Your task to perform on an android device: When is my next appointment? Image 0: 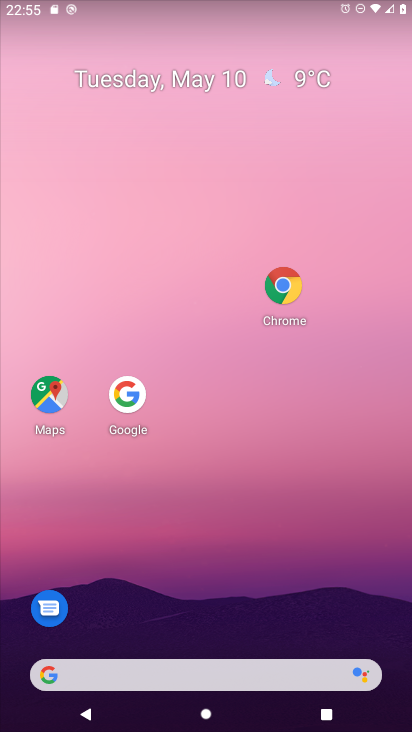
Step 0: drag from (177, 662) to (330, 135)
Your task to perform on an android device: When is my next appointment? Image 1: 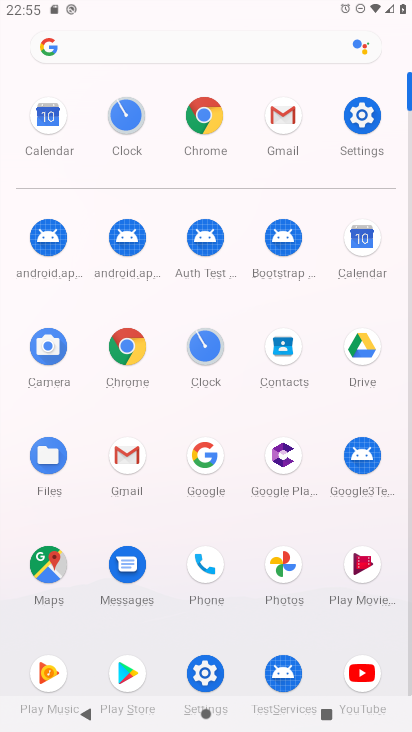
Step 1: click (351, 259)
Your task to perform on an android device: When is my next appointment? Image 2: 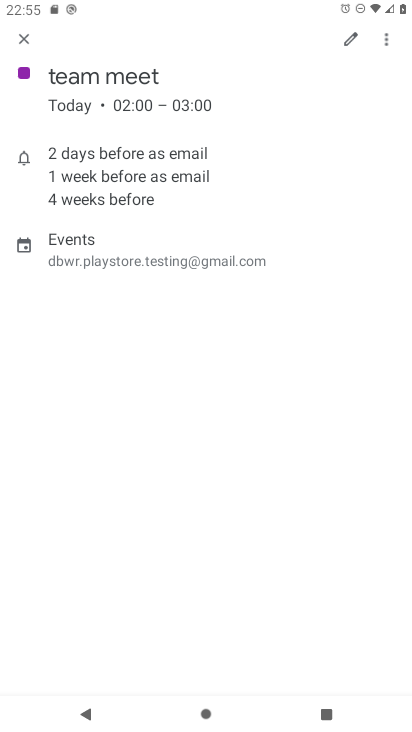
Step 2: click (22, 38)
Your task to perform on an android device: When is my next appointment? Image 3: 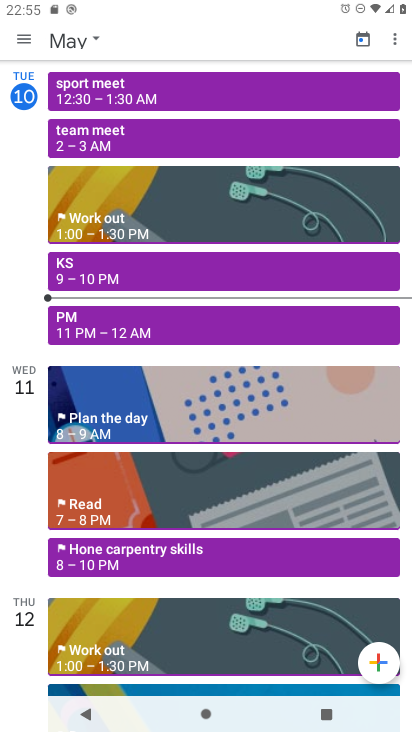
Step 3: click (74, 42)
Your task to perform on an android device: When is my next appointment? Image 4: 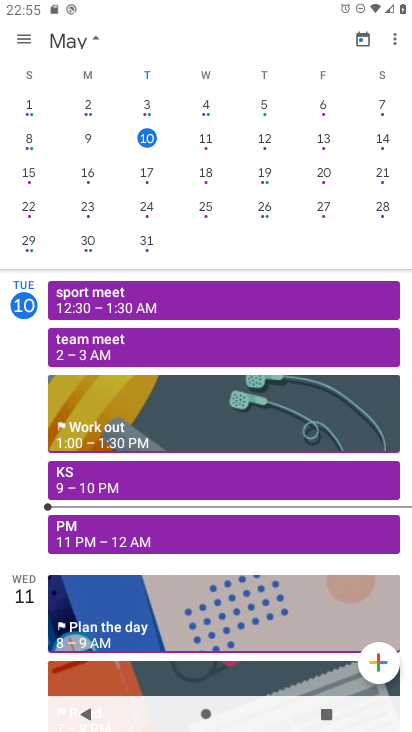
Step 4: click (26, 38)
Your task to perform on an android device: When is my next appointment? Image 5: 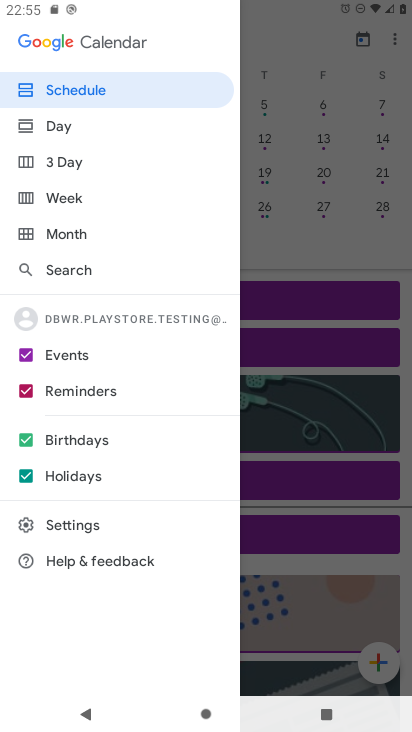
Step 5: click (86, 89)
Your task to perform on an android device: When is my next appointment? Image 6: 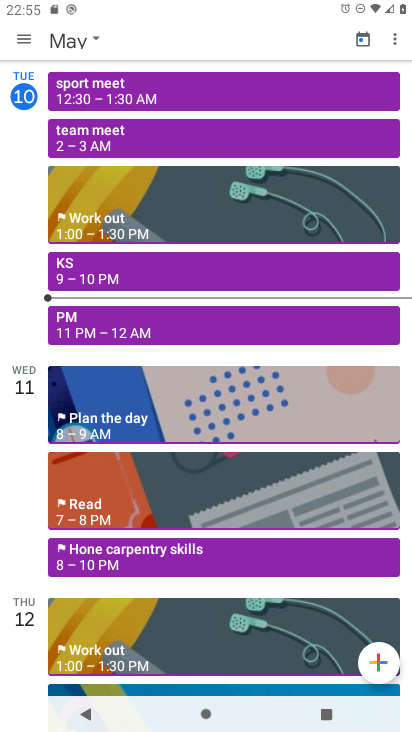
Step 6: click (136, 199)
Your task to perform on an android device: When is my next appointment? Image 7: 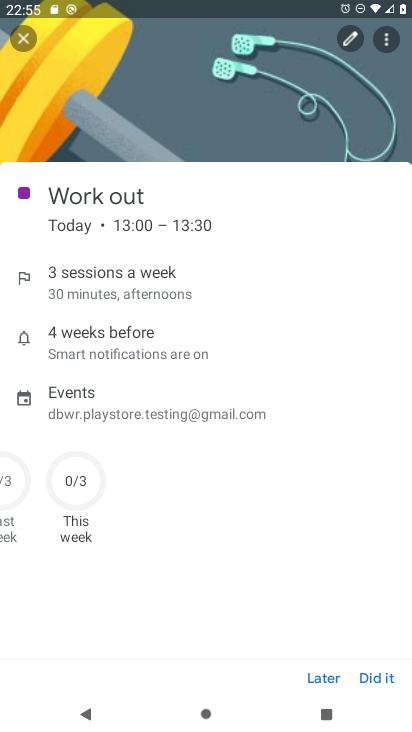
Step 7: task complete